Your task to perform on an android device: toggle javascript in the chrome app Image 0: 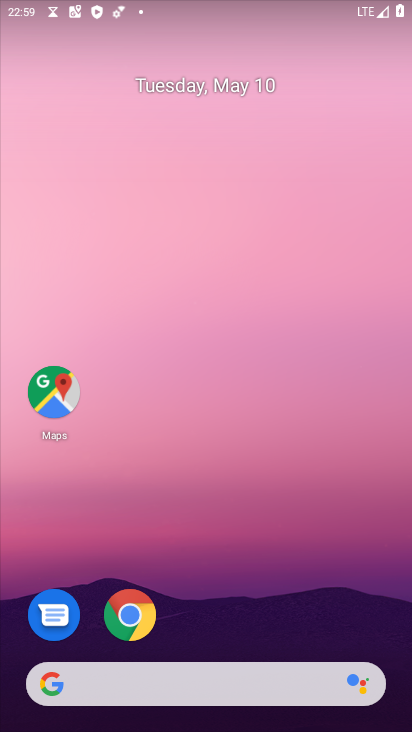
Step 0: click (131, 616)
Your task to perform on an android device: toggle javascript in the chrome app Image 1: 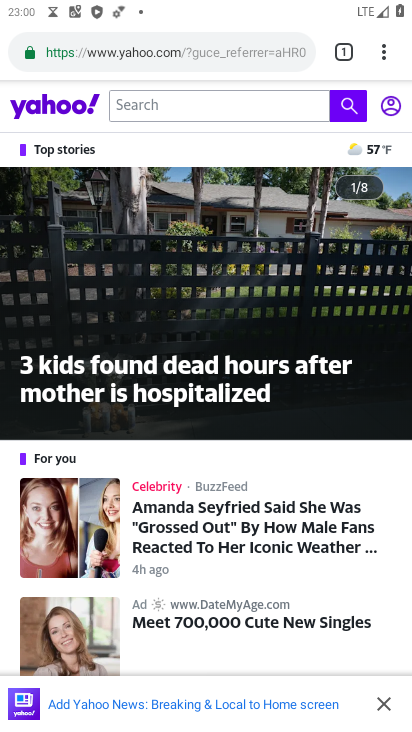
Step 1: click (385, 51)
Your task to perform on an android device: toggle javascript in the chrome app Image 2: 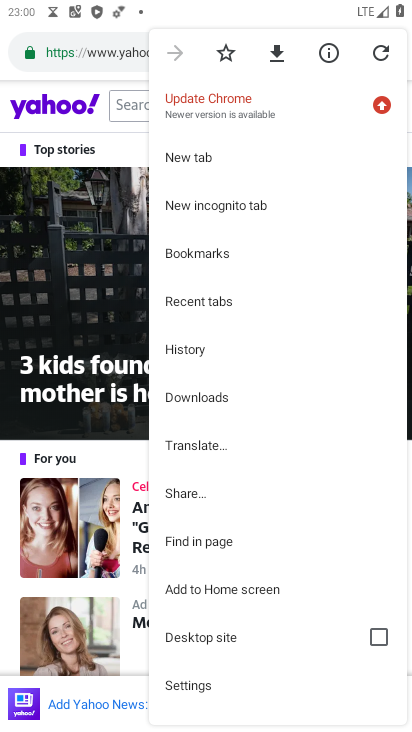
Step 2: click (185, 685)
Your task to perform on an android device: toggle javascript in the chrome app Image 3: 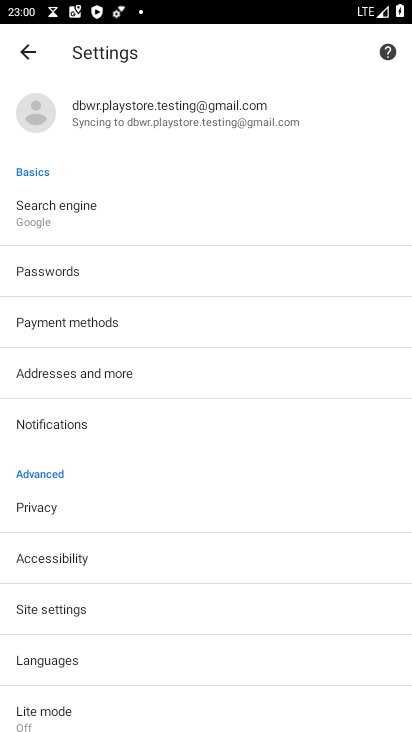
Step 3: click (74, 609)
Your task to perform on an android device: toggle javascript in the chrome app Image 4: 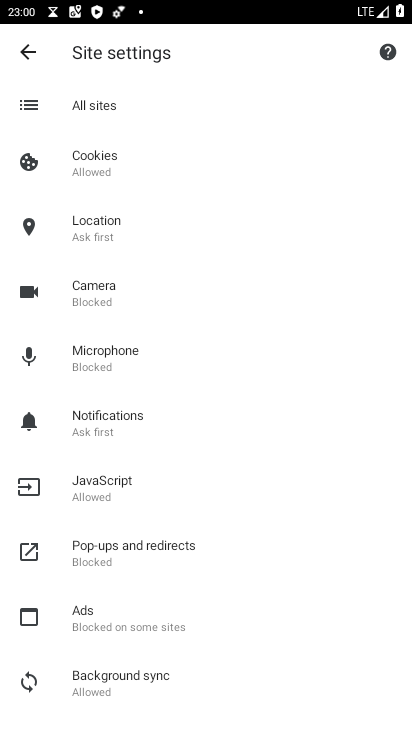
Step 4: click (92, 487)
Your task to perform on an android device: toggle javascript in the chrome app Image 5: 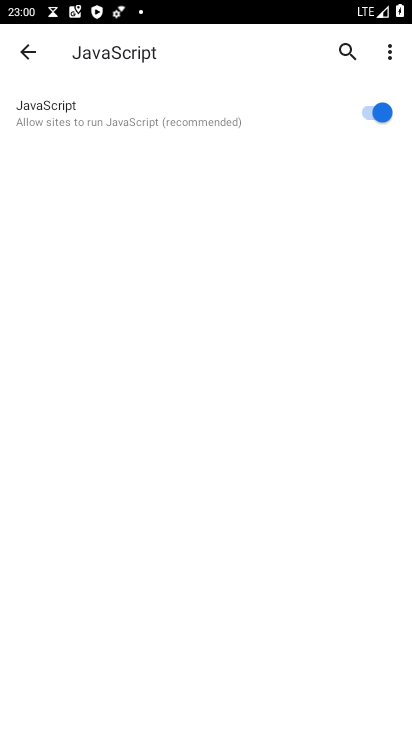
Step 5: click (380, 115)
Your task to perform on an android device: toggle javascript in the chrome app Image 6: 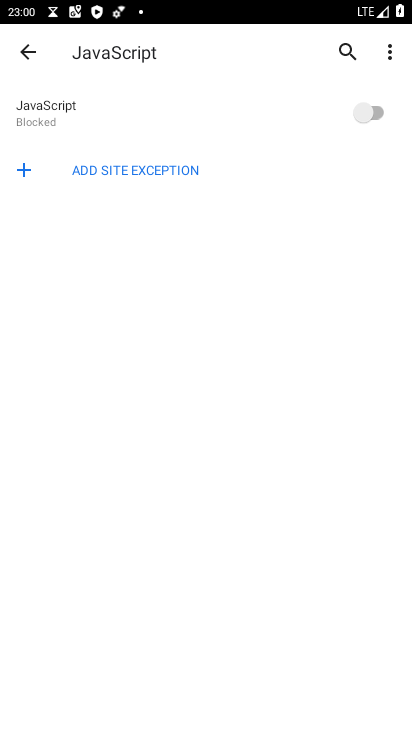
Step 6: task complete